Your task to perform on an android device: Show me recent news Image 0: 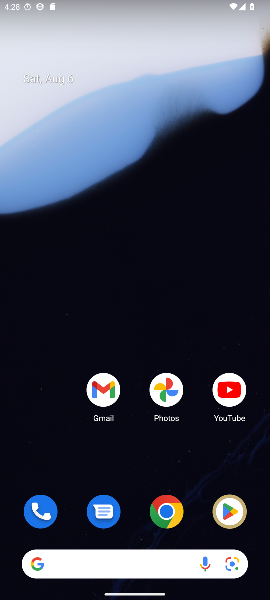
Step 0: click (109, 567)
Your task to perform on an android device: Show me recent news Image 1: 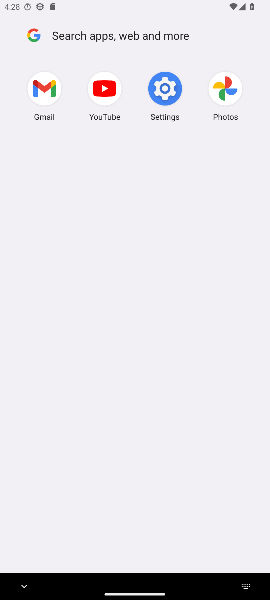
Step 1: click (27, 35)
Your task to perform on an android device: Show me recent news Image 2: 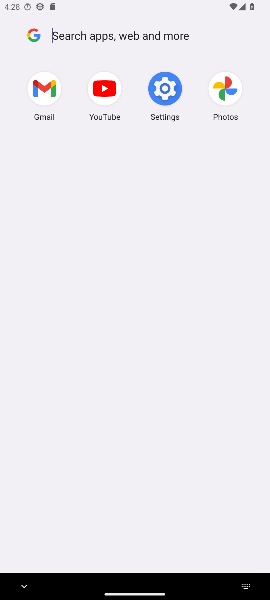
Step 2: type "google"
Your task to perform on an android device: Show me recent news Image 3: 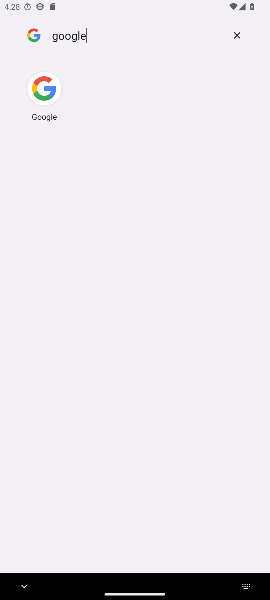
Step 3: click (43, 86)
Your task to perform on an android device: Show me recent news Image 4: 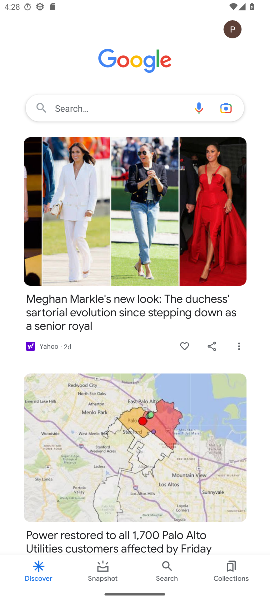
Step 4: click (109, 106)
Your task to perform on an android device: Show me recent news Image 5: 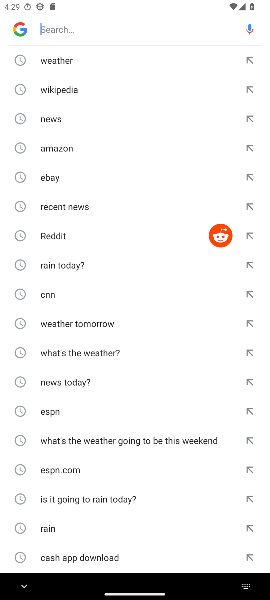
Step 5: type "recent news"
Your task to perform on an android device: Show me recent news Image 6: 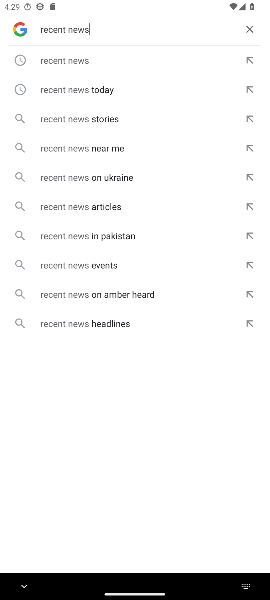
Step 6: click (78, 57)
Your task to perform on an android device: Show me recent news Image 7: 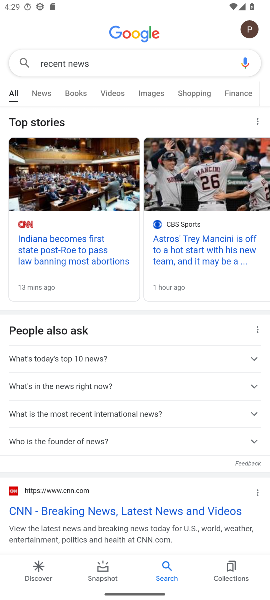
Step 7: task complete